Your task to perform on an android device: Go to privacy settings Image 0: 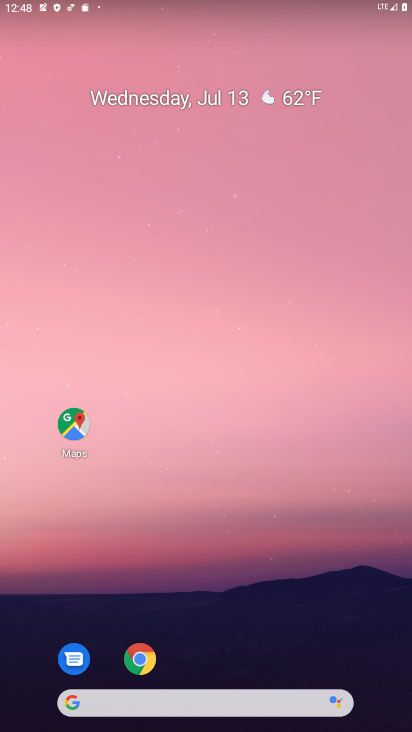
Step 0: drag from (214, 729) to (209, 49)
Your task to perform on an android device: Go to privacy settings Image 1: 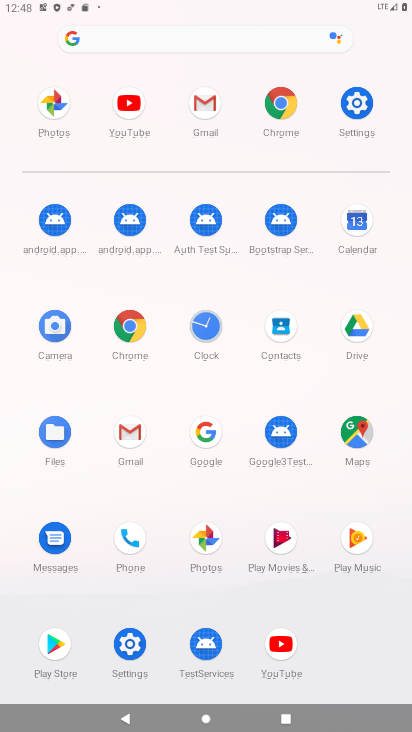
Step 1: click (362, 106)
Your task to perform on an android device: Go to privacy settings Image 2: 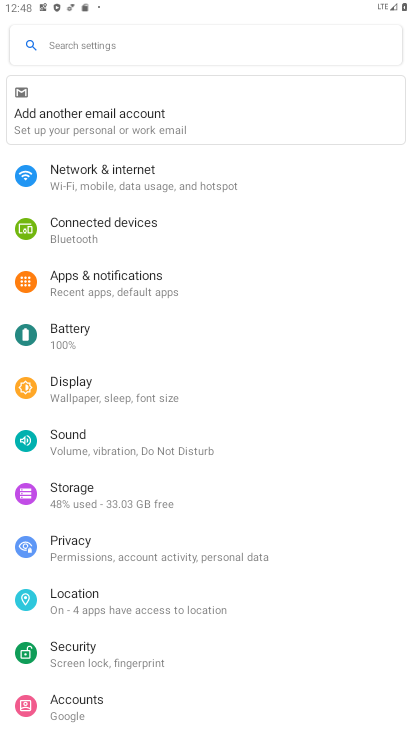
Step 2: click (78, 541)
Your task to perform on an android device: Go to privacy settings Image 3: 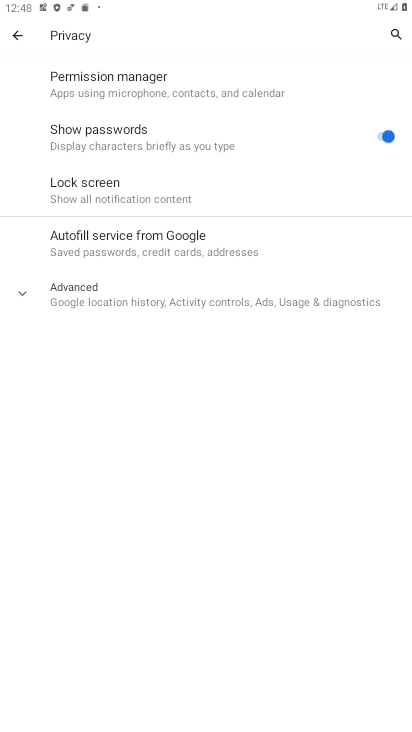
Step 3: task complete